Your task to perform on an android device: see sites visited before in the chrome app Image 0: 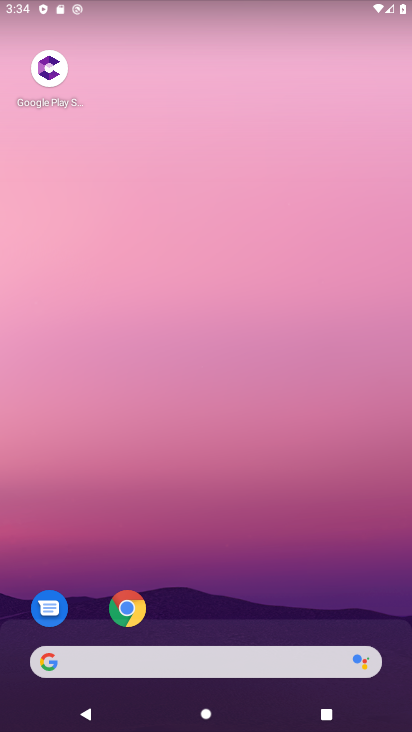
Step 0: click (125, 611)
Your task to perform on an android device: see sites visited before in the chrome app Image 1: 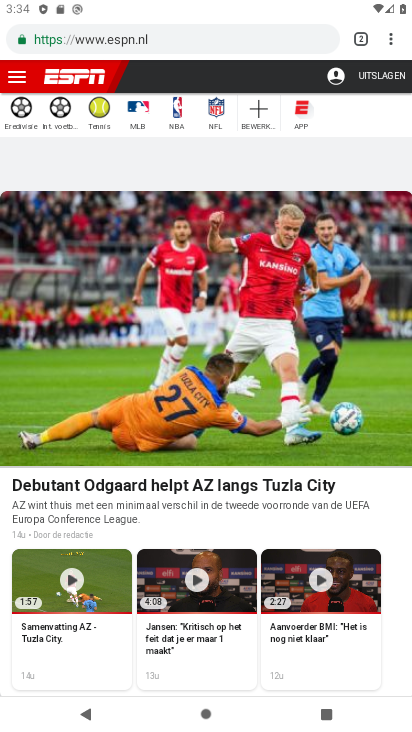
Step 1: click (390, 39)
Your task to perform on an android device: see sites visited before in the chrome app Image 2: 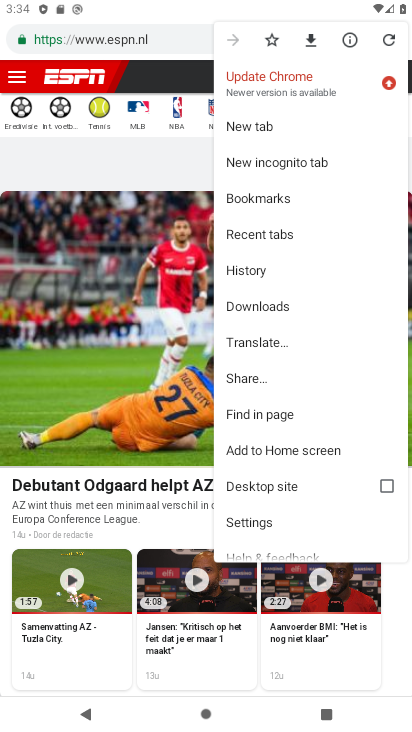
Step 2: click (253, 273)
Your task to perform on an android device: see sites visited before in the chrome app Image 3: 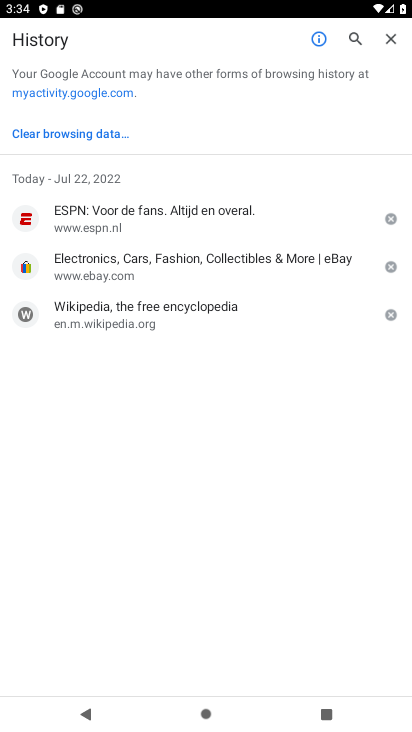
Step 3: task complete